Your task to perform on an android device: Do I have any events tomorrow? Image 0: 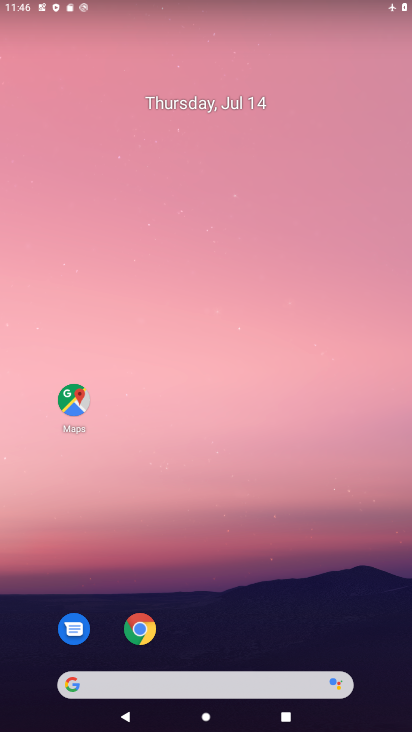
Step 0: drag from (206, 600) to (253, 66)
Your task to perform on an android device: Do I have any events tomorrow? Image 1: 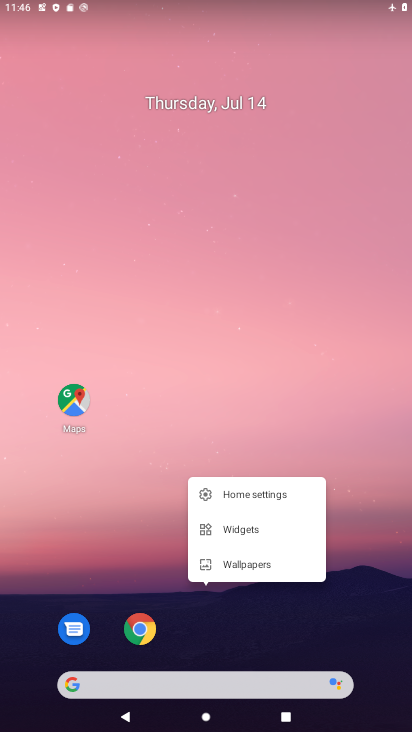
Step 1: drag from (342, 625) to (363, 12)
Your task to perform on an android device: Do I have any events tomorrow? Image 2: 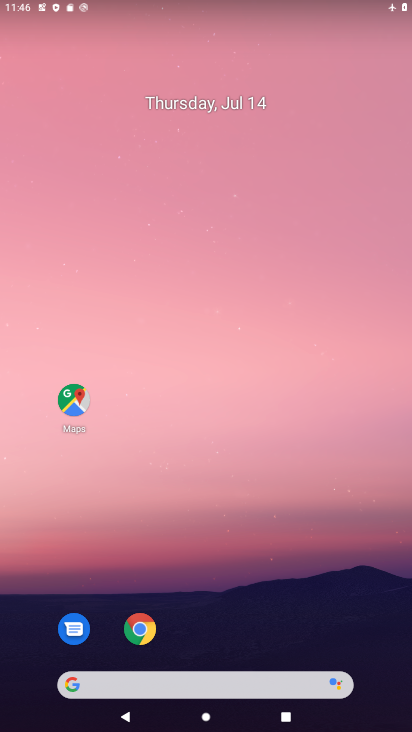
Step 2: drag from (265, 620) to (238, 4)
Your task to perform on an android device: Do I have any events tomorrow? Image 3: 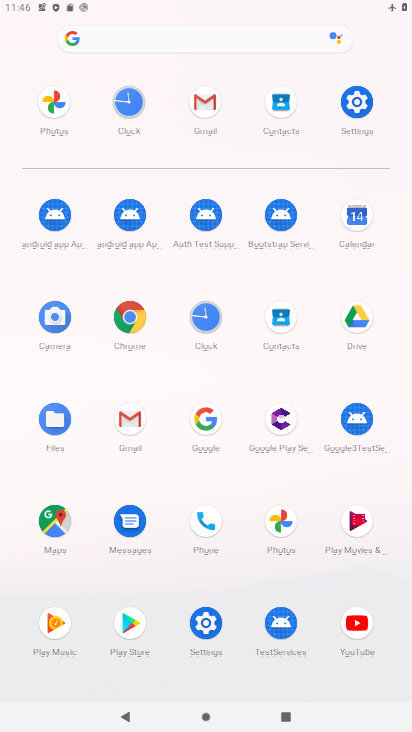
Step 3: click (361, 212)
Your task to perform on an android device: Do I have any events tomorrow? Image 4: 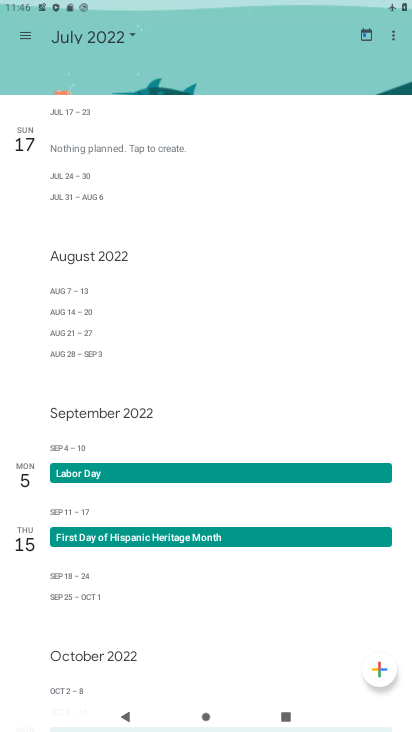
Step 4: click (136, 38)
Your task to perform on an android device: Do I have any events tomorrow? Image 5: 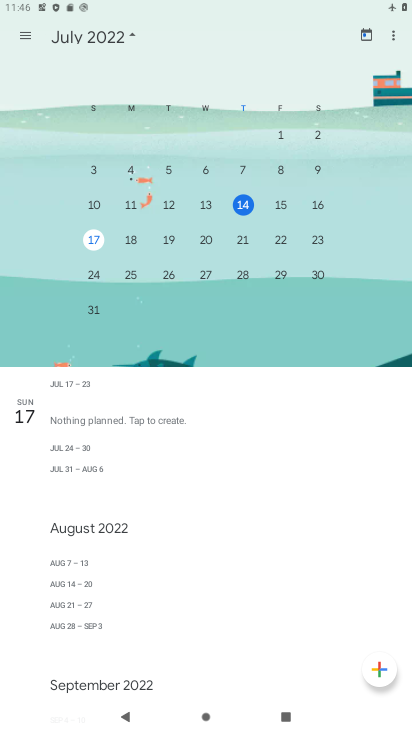
Step 5: click (283, 202)
Your task to perform on an android device: Do I have any events tomorrow? Image 6: 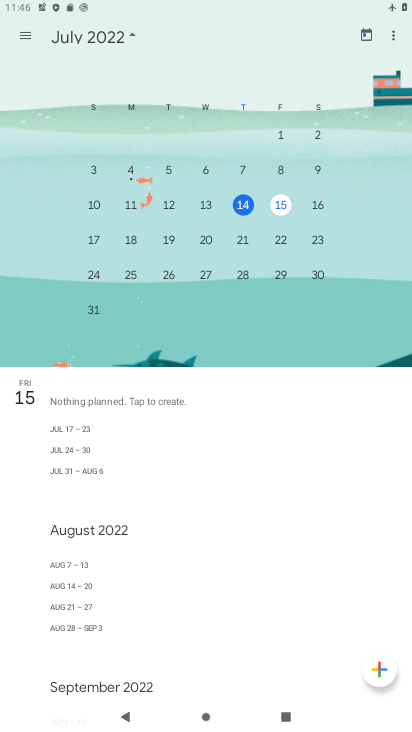
Step 6: task complete